Your task to perform on an android device: Check the weather Image 0: 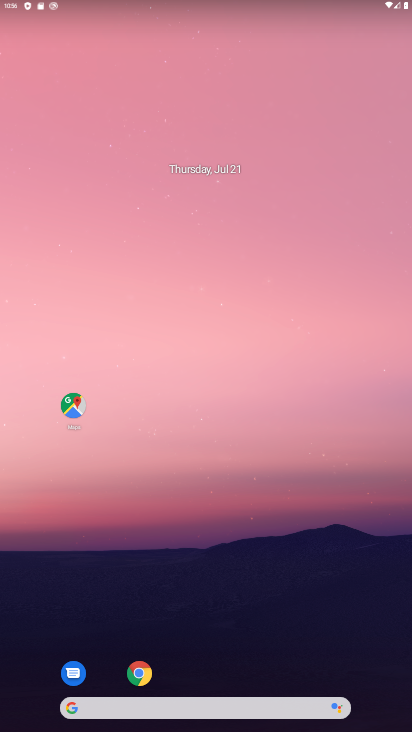
Step 0: drag from (255, 629) to (330, 0)
Your task to perform on an android device: Check the weather Image 1: 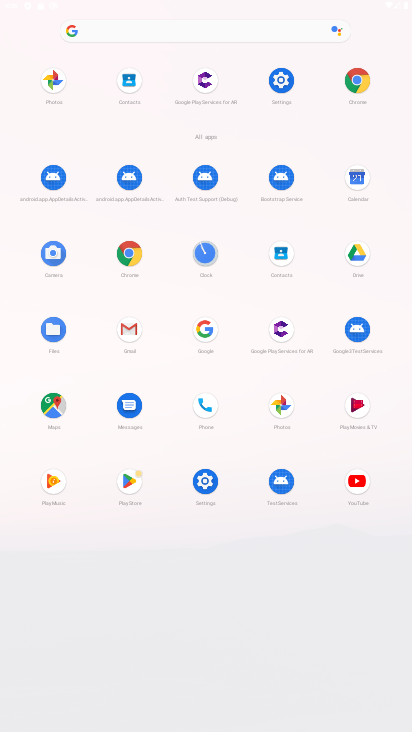
Step 1: click (360, 81)
Your task to perform on an android device: Check the weather Image 2: 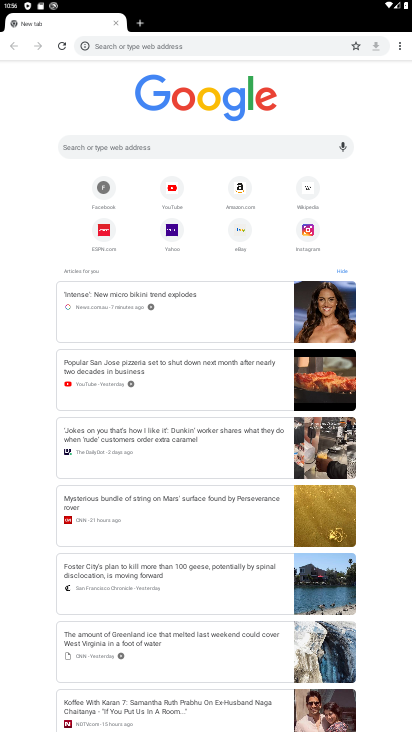
Step 2: click (280, 43)
Your task to perform on an android device: Check the weather Image 3: 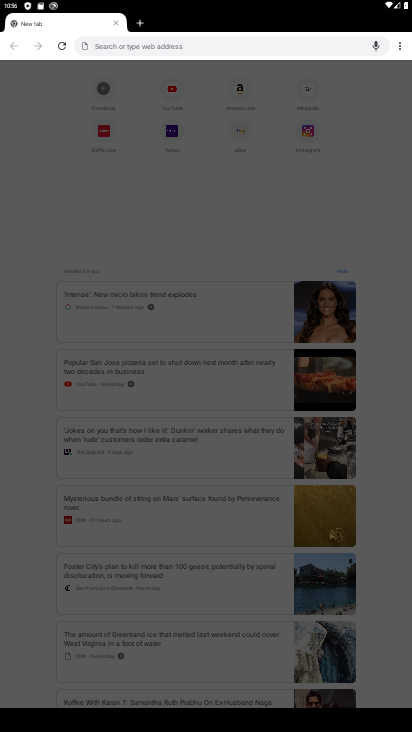
Step 3: type "Check the weather"
Your task to perform on an android device: Check the weather Image 4: 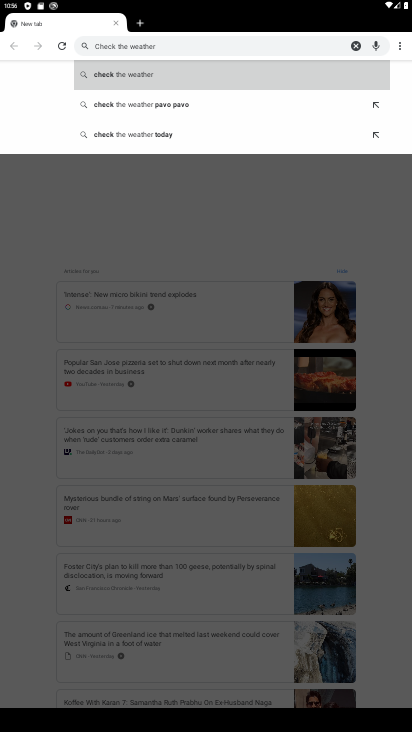
Step 4: click (131, 72)
Your task to perform on an android device: Check the weather Image 5: 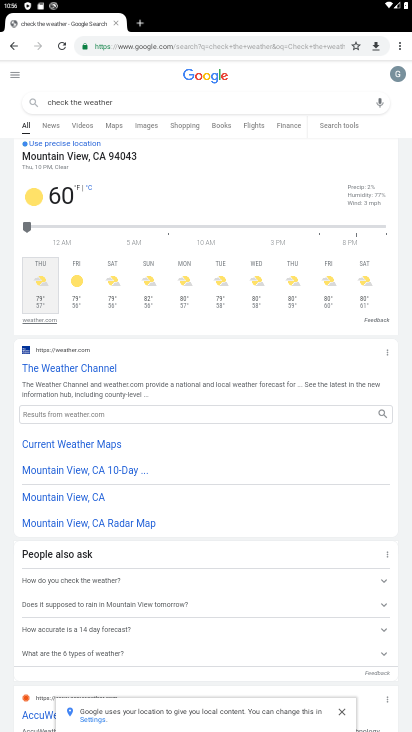
Step 5: task complete